Your task to perform on an android device: read, delete, or share a saved page in the chrome app Image 0: 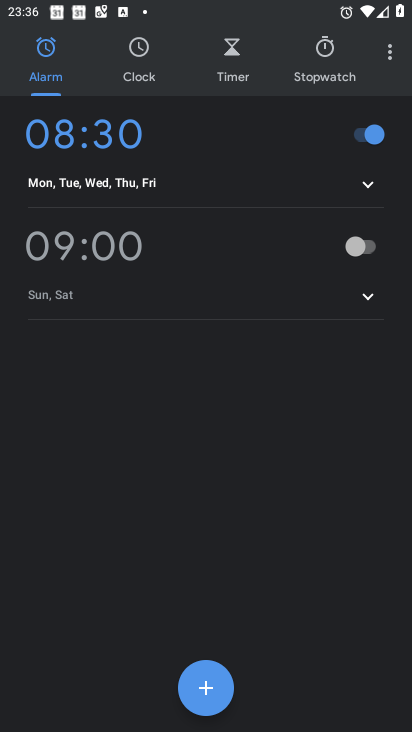
Step 0: press home button
Your task to perform on an android device: read, delete, or share a saved page in the chrome app Image 1: 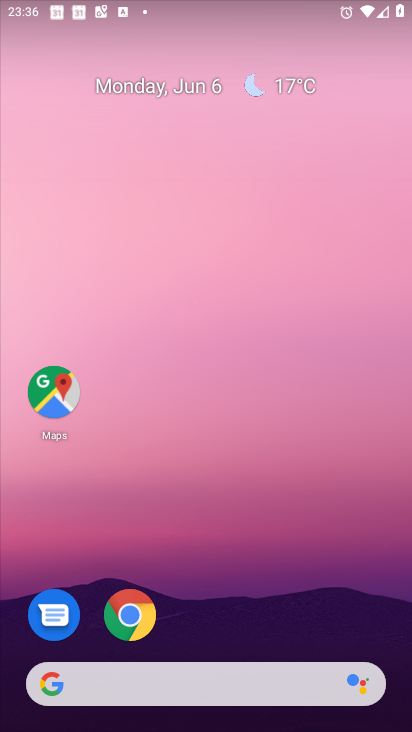
Step 1: click (119, 617)
Your task to perform on an android device: read, delete, or share a saved page in the chrome app Image 2: 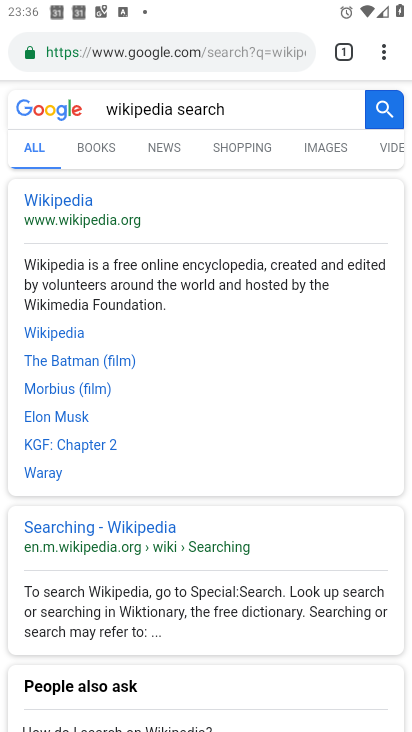
Step 2: click (385, 50)
Your task to perform on an android device: read, delete, or share a saved page in the chrome app Image 3: 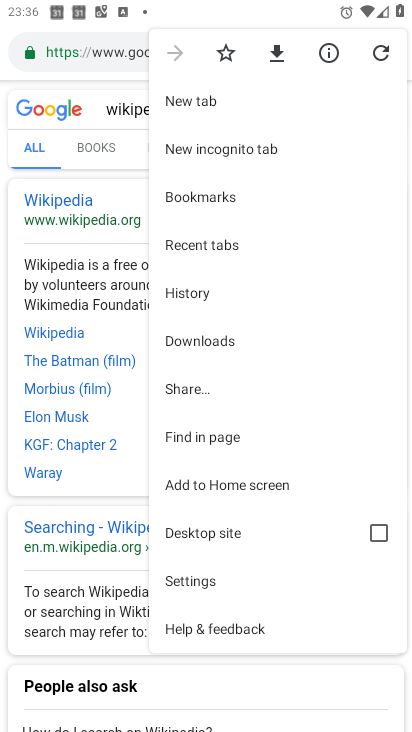
Step 3: click (204, 336)
Your task to perform on an android device: read, delete, or share a saved page in the chrome app Image 4: 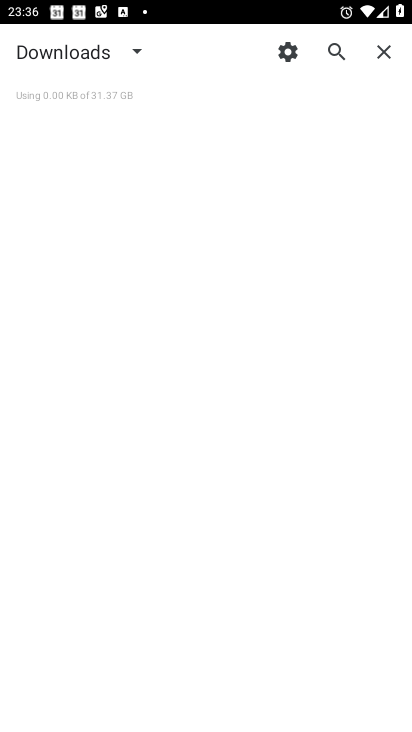
Step 4: task complete